Your task to perform on an android device: refresh tabs in the chrome app Image 0: 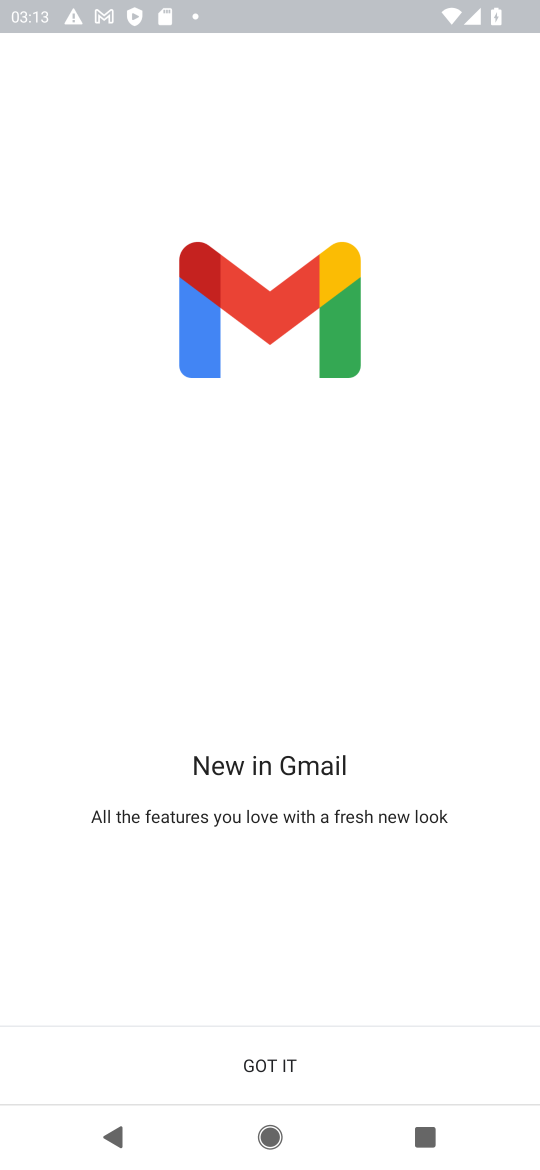
Step 0: press home button
Your task to perform on an android device: refresh tabs in the chrome app Image 1: 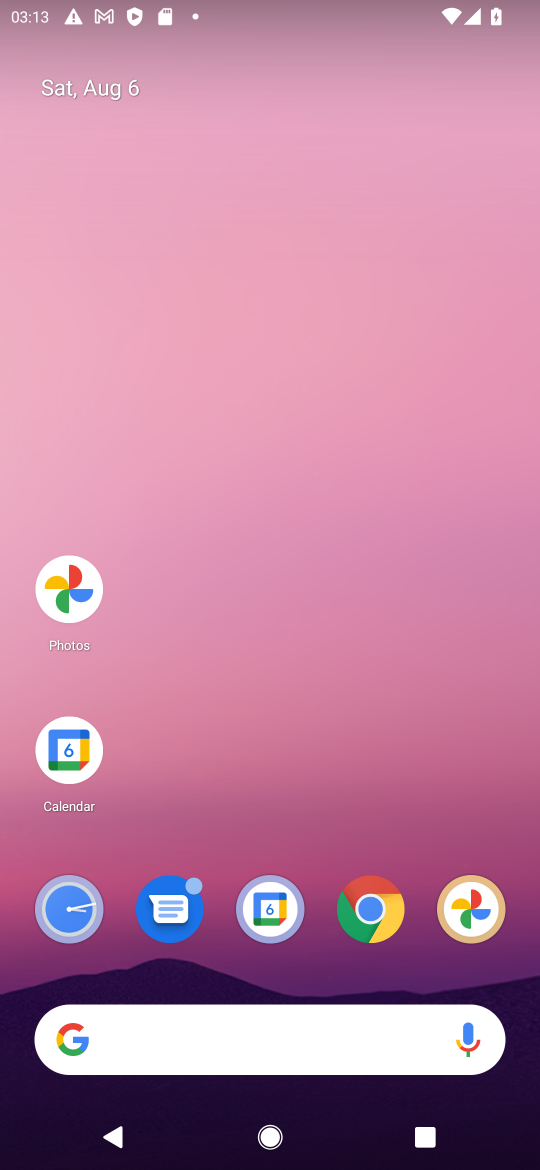
Step 1: click (364, 901)
Your task to perform on an android device: refresh tabs in the chrome app Image 2: 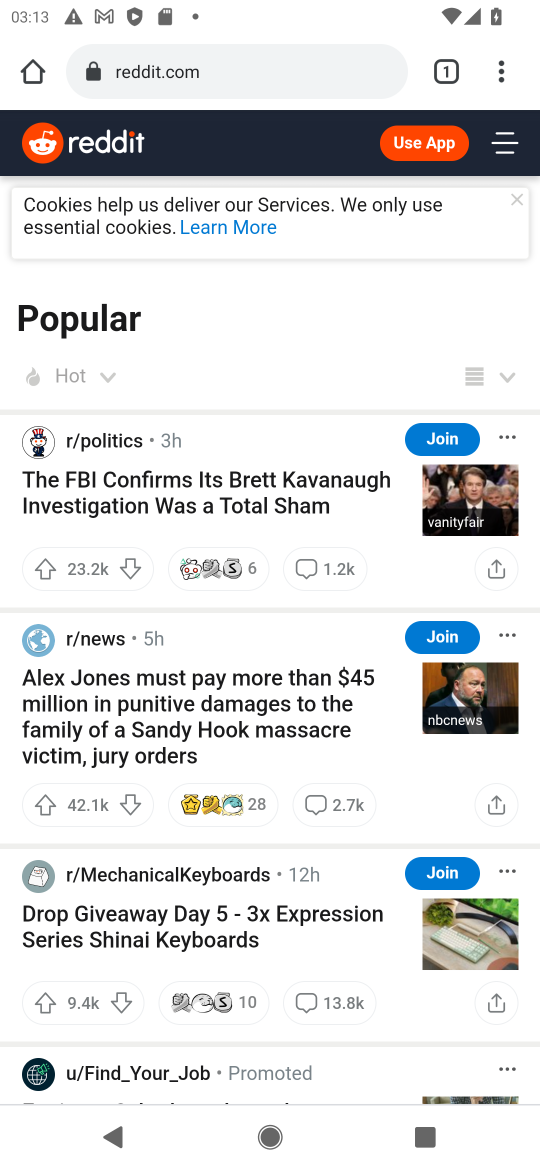
Step 2: click (492, 59)
Your task to perform on an android device: refresh tabs in the chrome app Image 3: 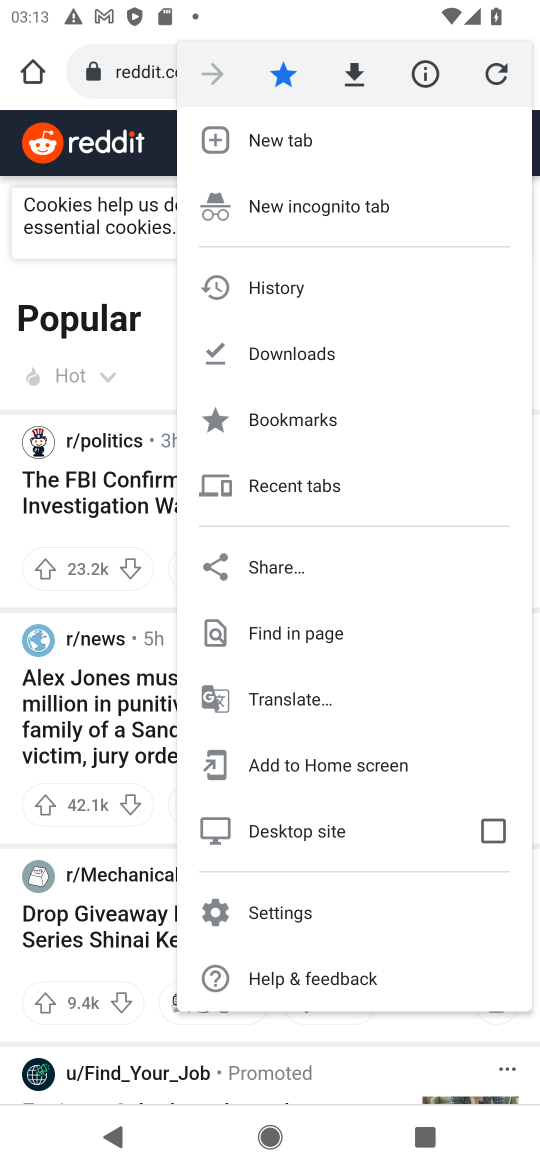
Step 3: click (495, 67)
Your task to perform on an android device: refresh tabs in the chrome app Image 4: 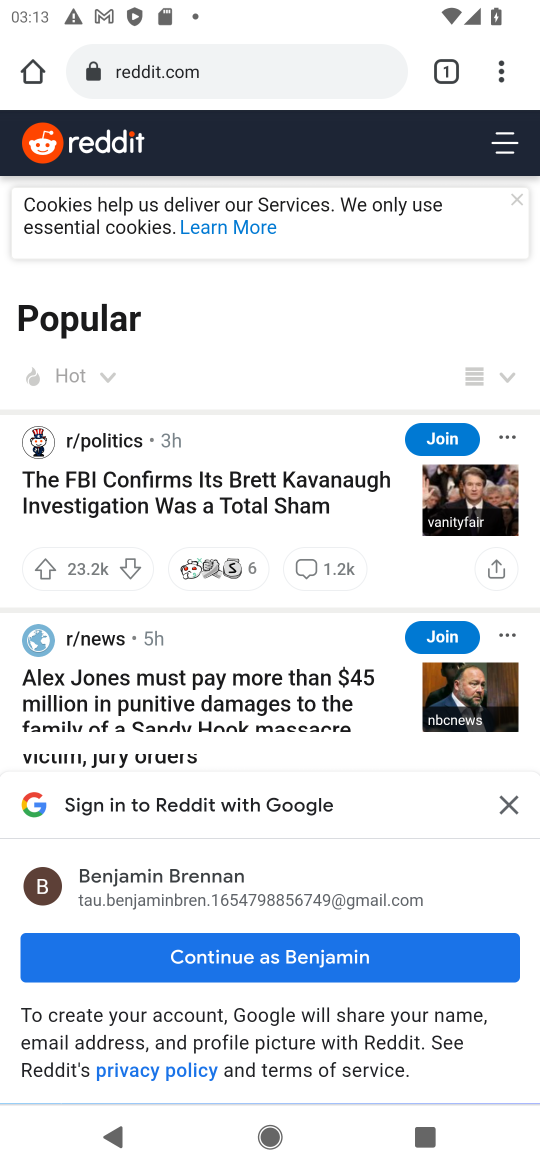
Step 4: task complete